Your task to perform on an android device: Search for seafood restaurants on Google Maps Image 0: 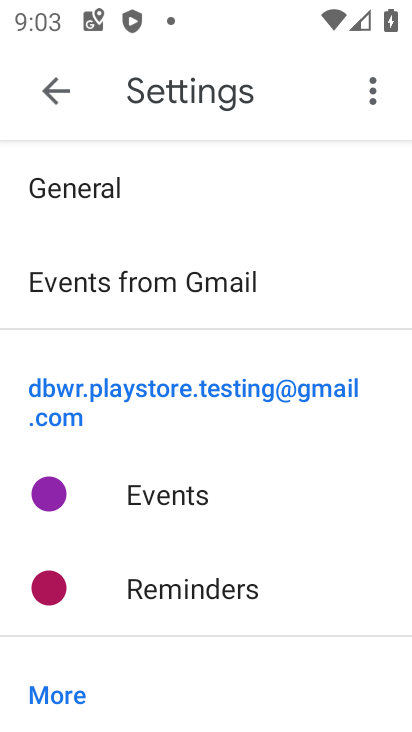
Step 0: press home button
Your task to perform on an android device: Search for seafood restaurants on Google Maps Image 1: 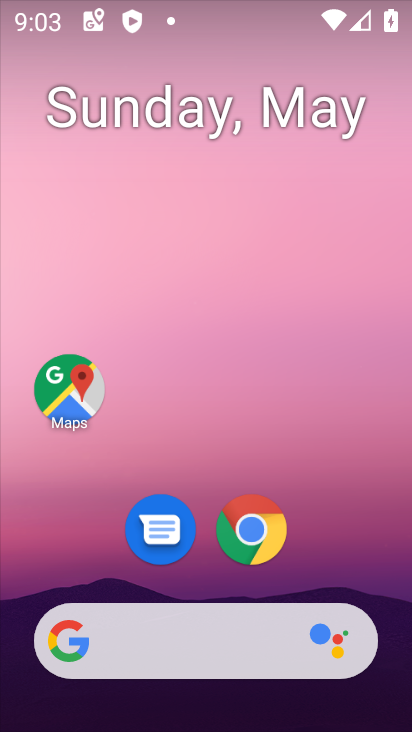
Step 1: click (75, 403)
Your task to perform on an android device: Search for seafood restaurants on Google Maps Image 2: 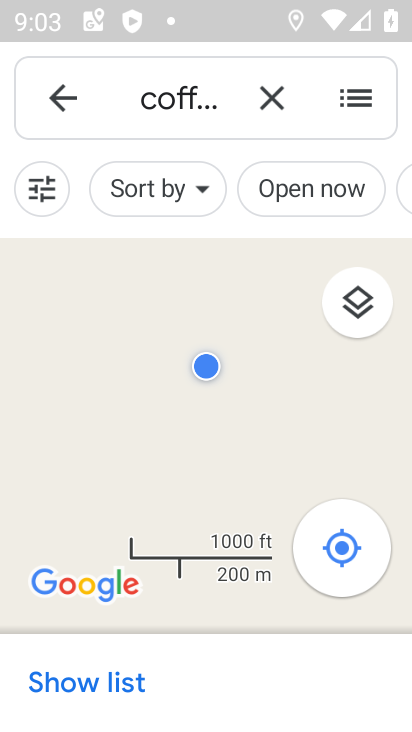
Step 2: click (261, 103)
Your task to perform on an android device: Search for seafood restaurants on Google Maps Image 3: 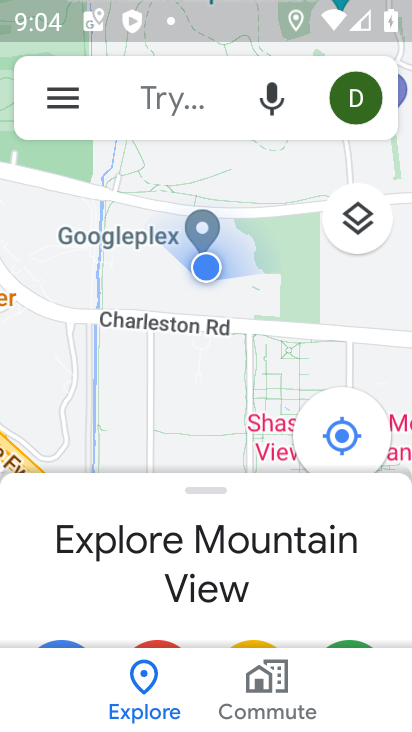
Step 3: click (236, 103)
Your task to perform on an android device: Search for seafood restaurants on Google Maps Image 4: 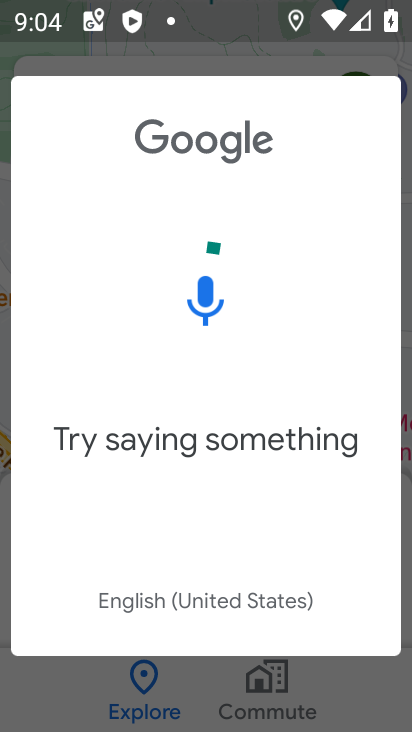
Step 4: press back button
Your task to perform on an android device: Search for seafood restaurants on Google Maps Image 5: 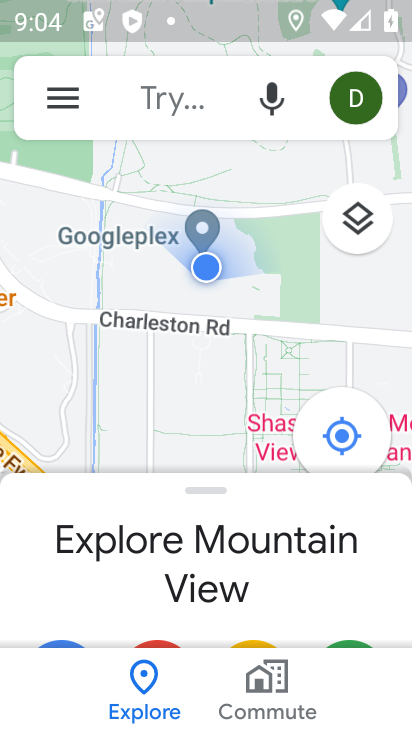
Step 5: click (207, 101)
Your task to perform on an android device: Search for seafood restaurants on Google Maps Image 6: 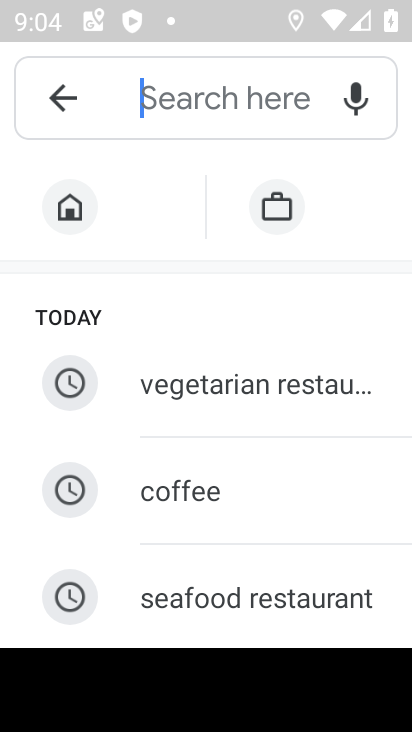
Step 6: click (258, 614)
Your task to perform on an android device: Search for seafood restaurants on Google Maps Image 7: 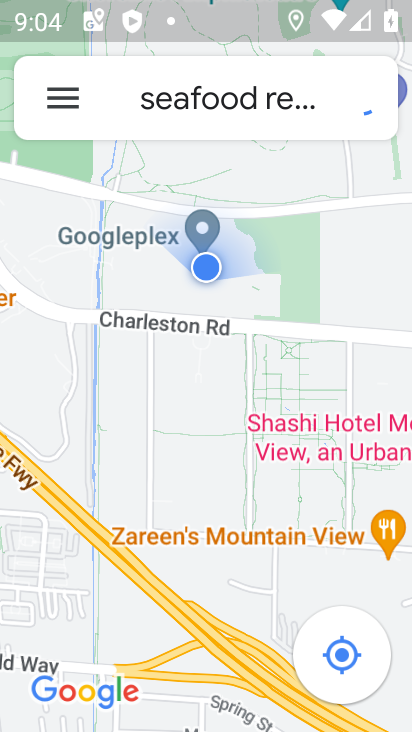
Step 7: task complete